Your task to perform on an android device: choose inbox layout in the gmail app Image 0: 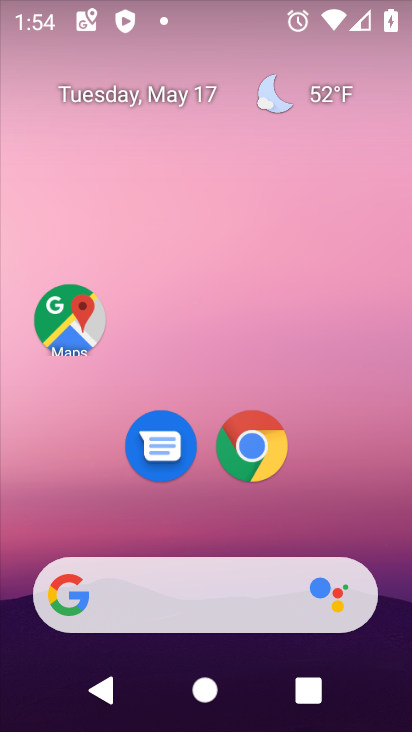
Step 0: drag from (208, 528) to (242, 253)
Your task to perform on an android device: choose inbox layout in the gmail app Image 1: 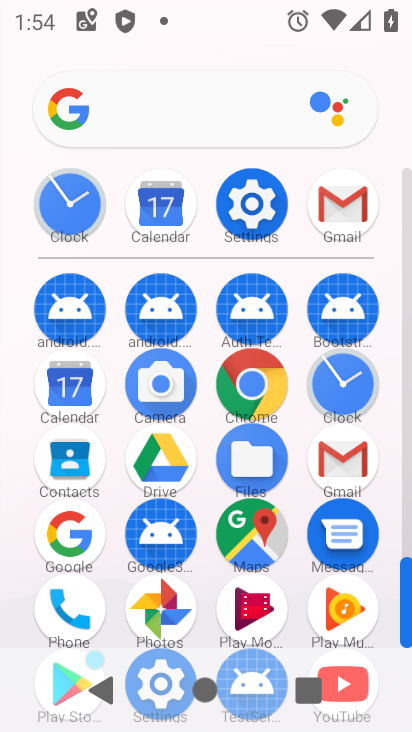
Step 1: click (337, 215)
Your task to perform on an android device: choose inbox layout in the gmail app Image 2: 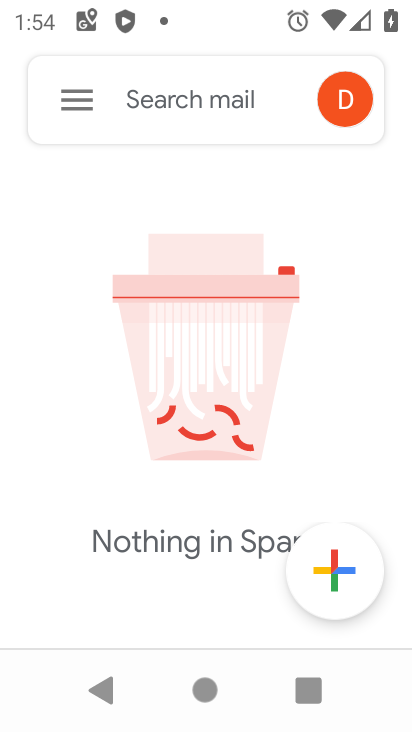
Step 2: click (86, 101)
Your task to perform on an android device: choose inbox layout in the gmail app Image 3: 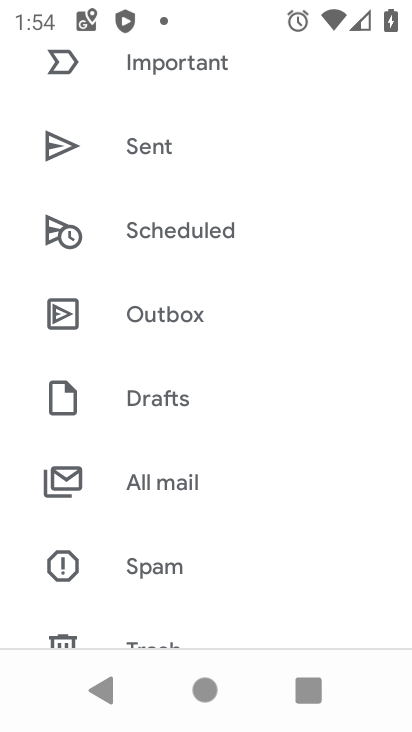
Step 3: drag from (187, 206) to (144, 497)
Your task to perform on an android device: choose inbox layout in the gmail app Image 4: 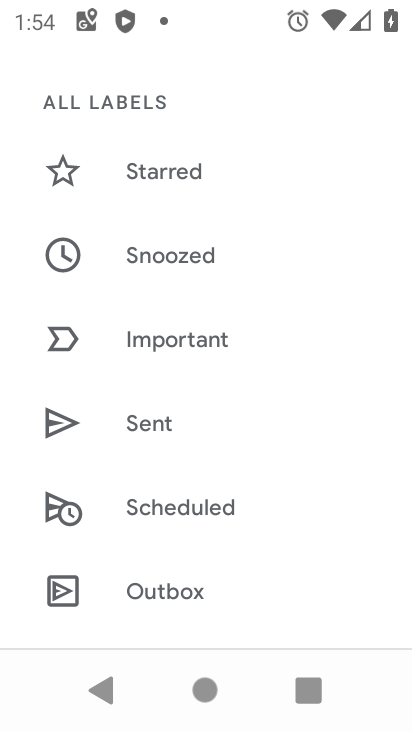
Step 4: drag from (185, 258) to (164, 493)
Your task to perform on an android device: choose inbox layout in the gmail app Image 5: 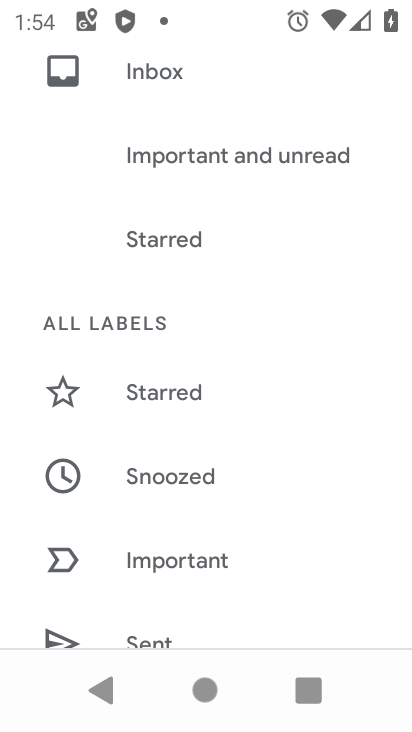
Step 5: drag from (208, 208) to (186, 547)
Your task to perform on an android device: choose inbox layout in the gmail app Image 6: 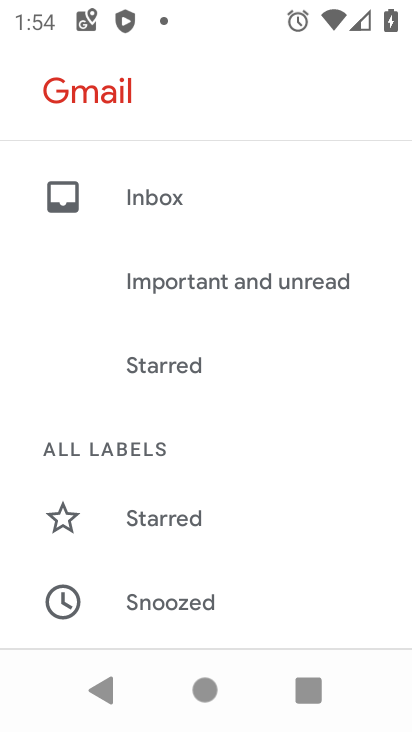
Step 6: drag from (170, 538) to (271, 159)
Your task to perform on an android device: choose inbox layout in the gmail app Image 7: 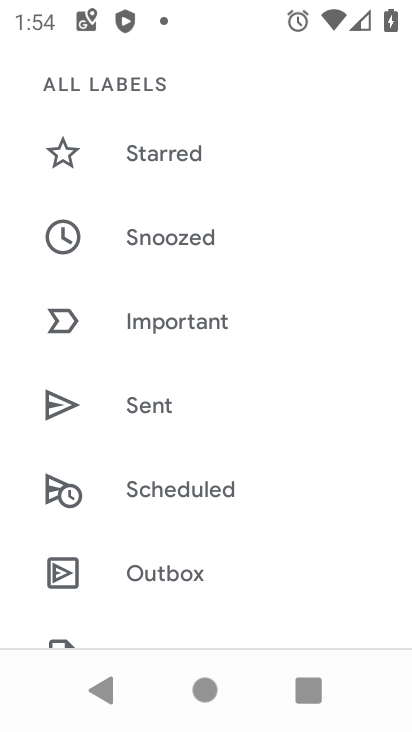
Step 7: drag from (198, 546) to (259, 238)
Your task to perform on an android device: choose inbox layout in the gmail app Image 8: 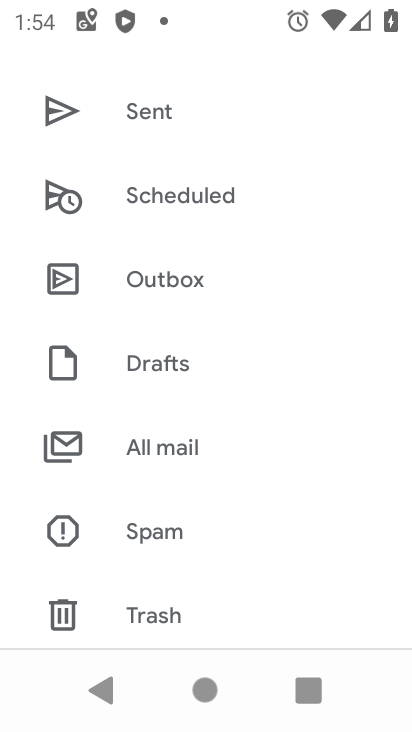
Step 8: drag from (152, 568) to (259, 192)
Your task to perform on an android device: choose inbox layout in the gmail app Image 9: 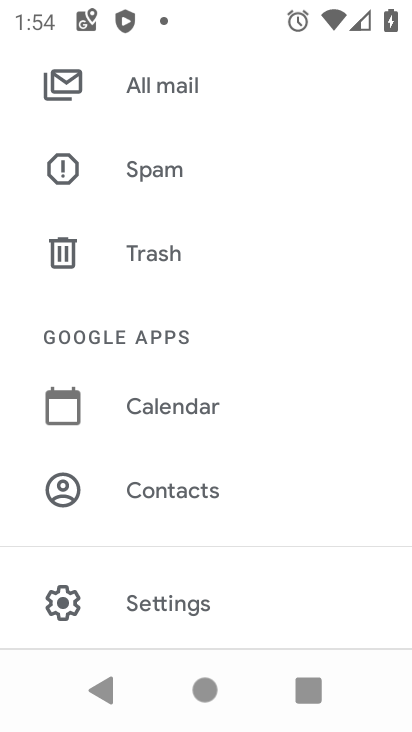
Step 9: click (155, 605)
Your task to perform on an android device: choose inbox layout in the gmail app Image 10: 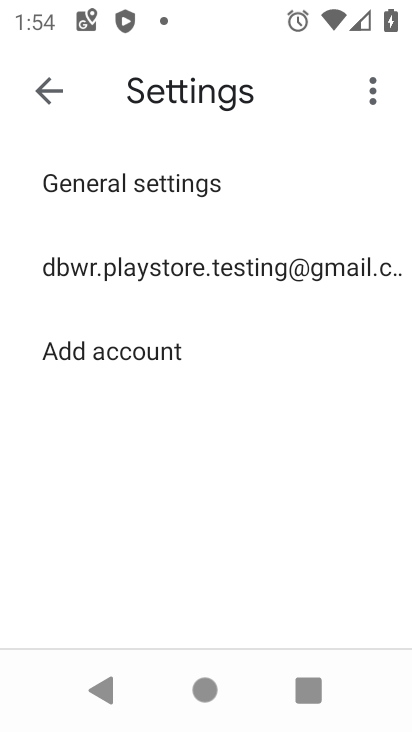
Step 10: click (155, 268)
Your task to perform on an android device: choose inbox layout in the gmail app Image 11: 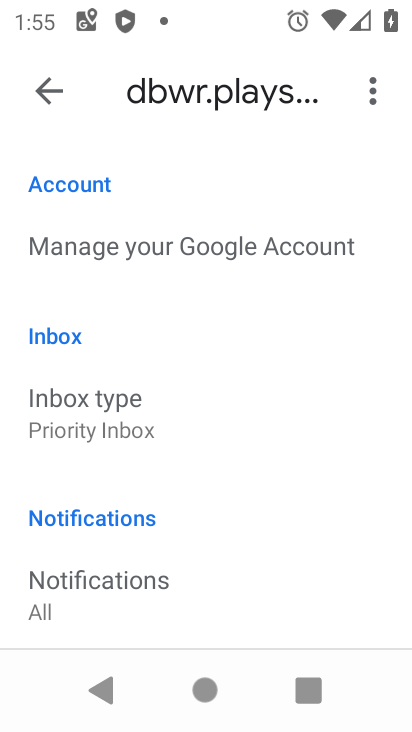
Step 11: click (115, 418)
Your task to perform on an android device: choose inbox layout in the gmail app Image 12: 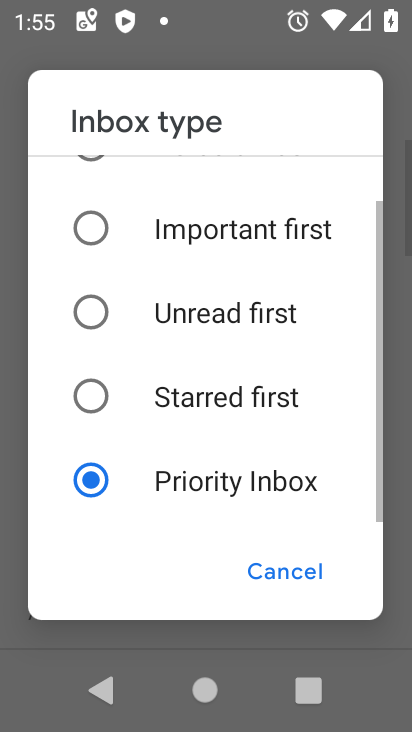
Step 12: drag from (227, 208) to (190, 499)
Your task to perform on an android device: choose inbox layout in the gmail app Image 13: 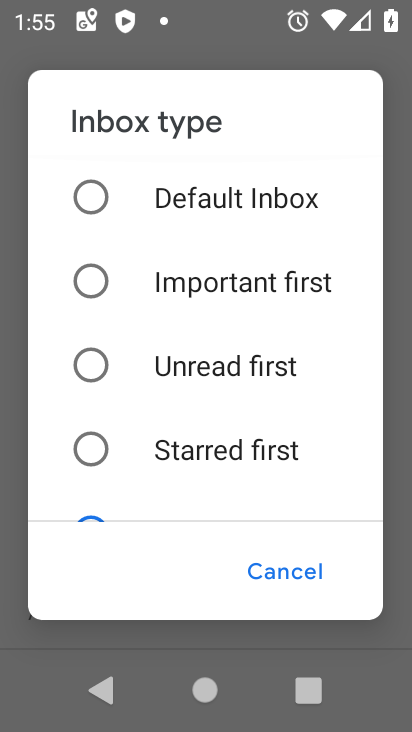
Step 13: click (107, 191)
Your task to perform on an android device: choose inbox layout in the gmail app Image 14: 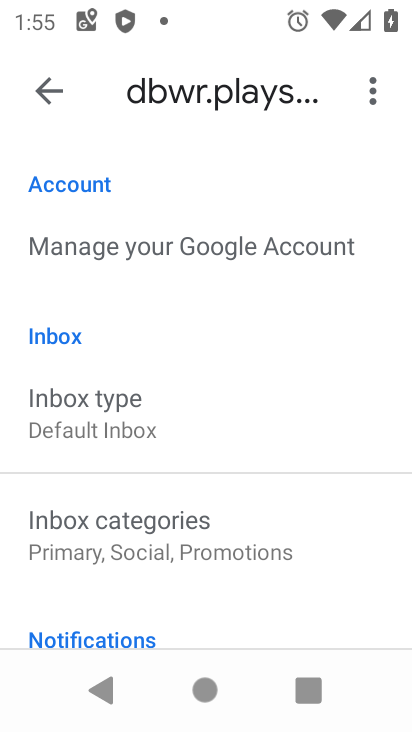
Step 14: task complete